Your task to perform on an android device: toggle show notifications on the lock screen Image 0: 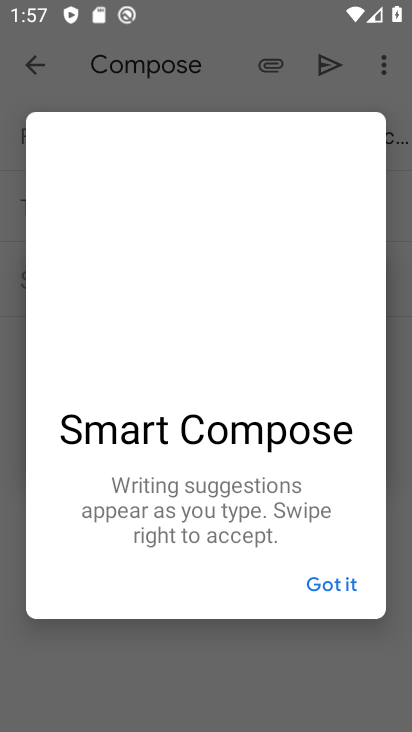
Step 0: press home button
Your task to perform on an android device: toggle show notifications on the lock screen Image 1: 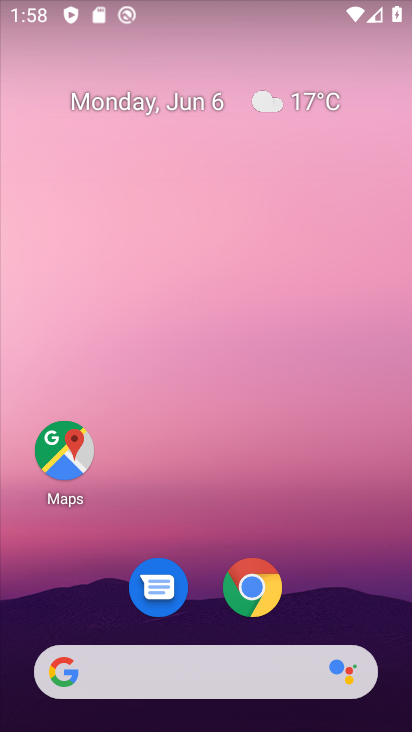
Step 1: drag from (369, 555) to (346, 173)
Your task to perform on an android device: toggle show notifications on the lock screen Image 2: 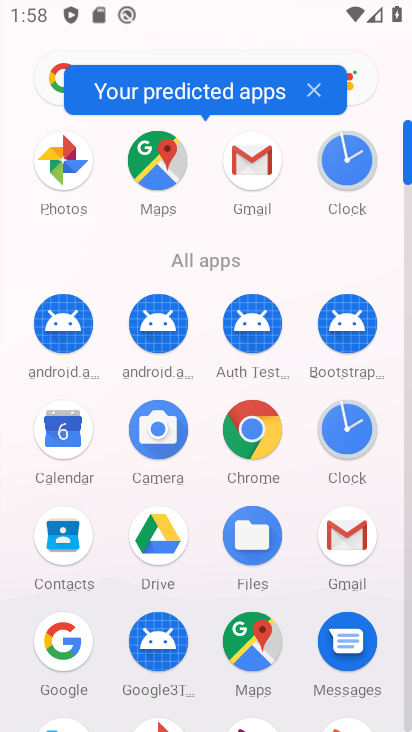
Step 2: drag from (214, 611) to (188, 333)
Your task to perform on an android device: toggle show notifications on the lock screen Image 3: 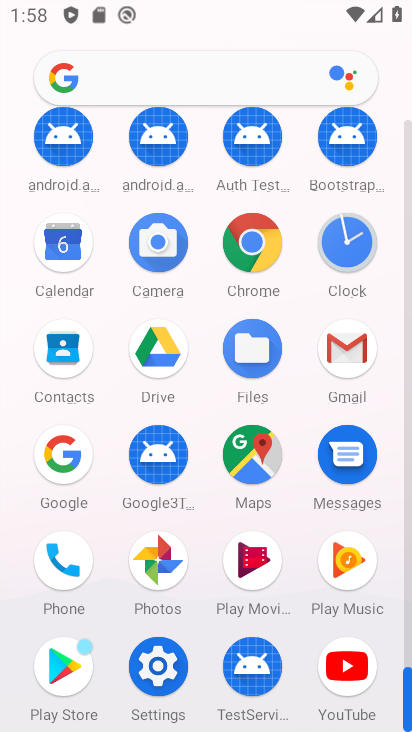
Step 3: click (168, 627)
Your task to perform on an android device: toggle show notifications on the lock screen Image 4: 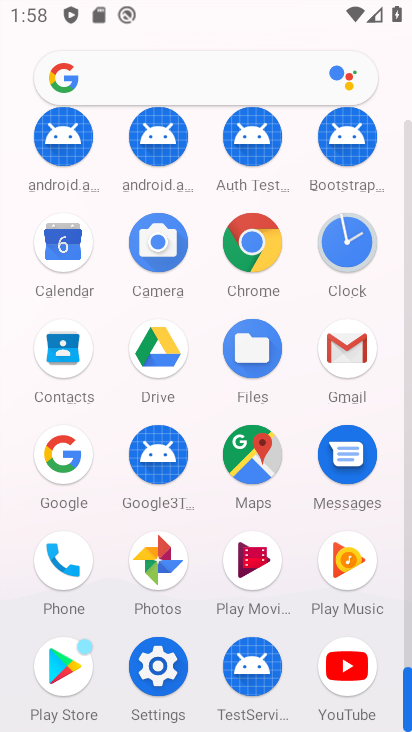
Step 4: click (168, 686)
Your task to perform on an android device: toggle show notifications on the lock screen Image 5: 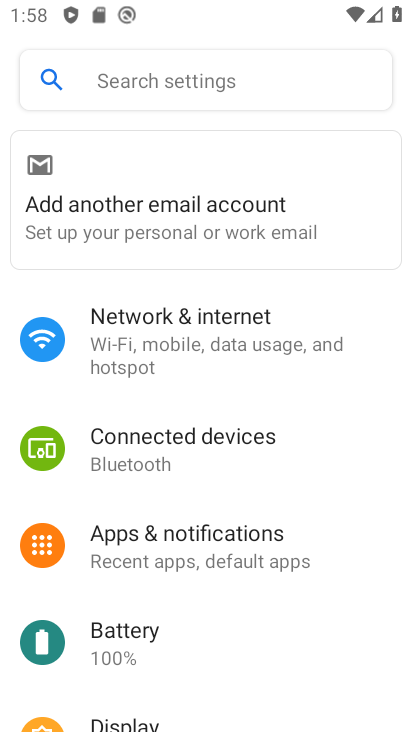
Step 5: click (230, 559)
Your task to perform on an android device: toggle show notifications on the lock screen Image 6: 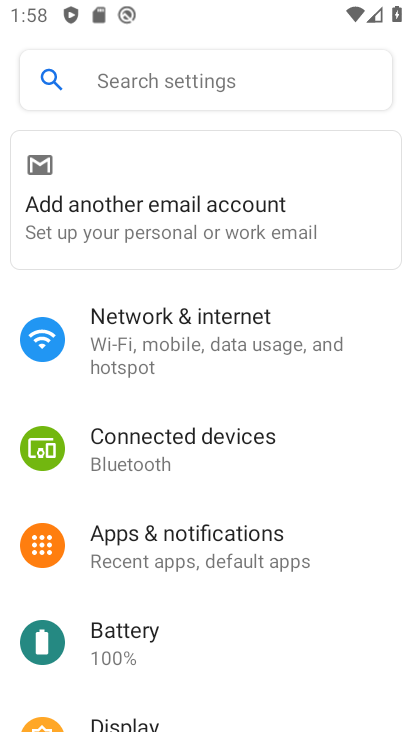
Step 6: click (173, 550)
Your task to perform on an android device: toggle show notifications on the lock screen Image 7: 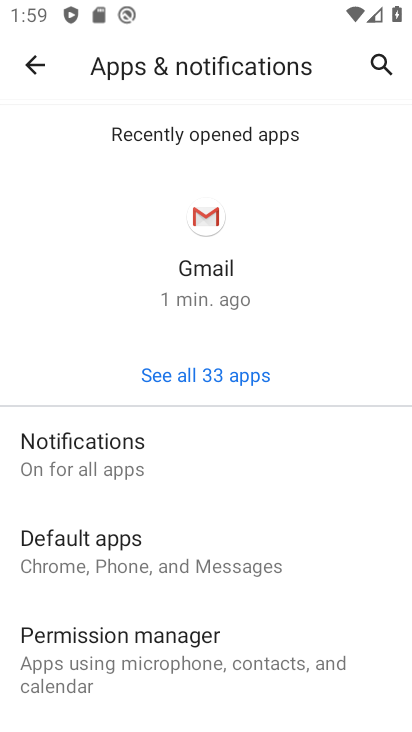
Step 7: click (167, 452)
Your task to perform on an android device: toggle show notifications on the lock screen Image 8: 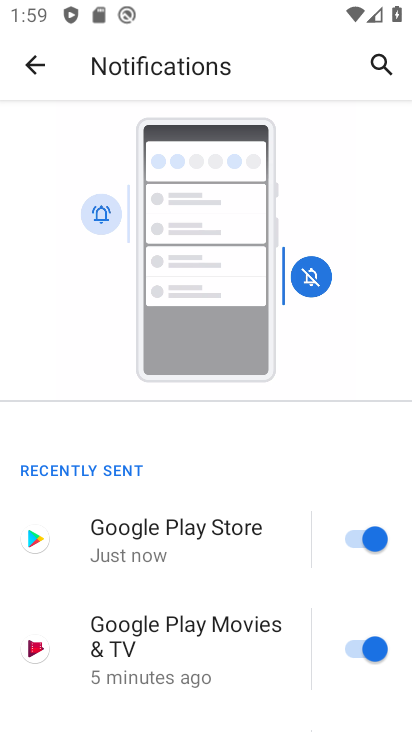
Step 8: drag from (260, 527) to (246, 237)
Your task to perform on an android device: toggle show notifications on the lock screen Image 9: 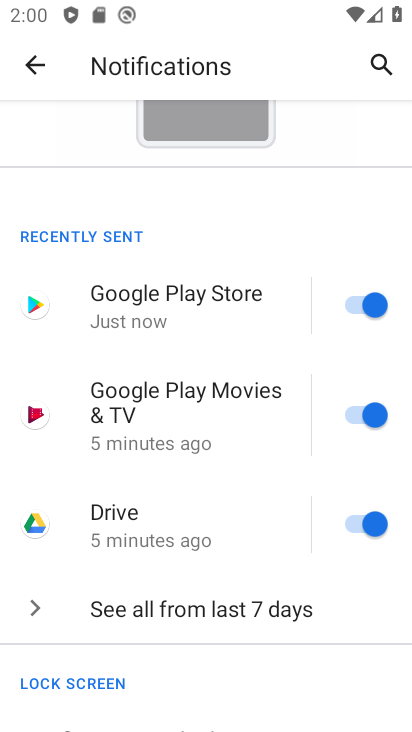
Step 9: drag from (227, 664) to (261, 321)
Your task to perform on an android device: toggle show notifications on the lock screen Image 10: 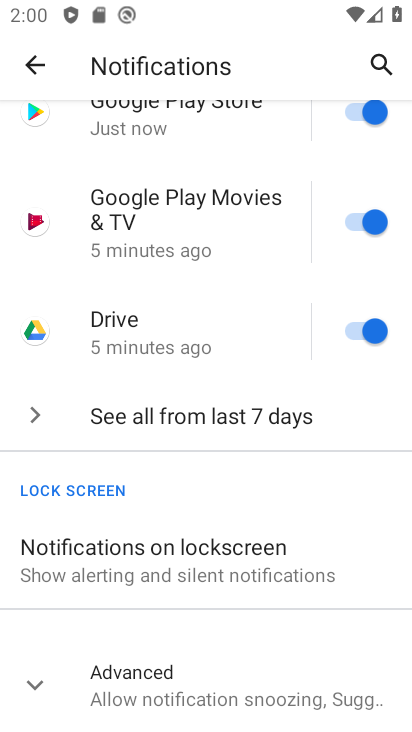
Step 10: click (196, 571)
Your task to perform on an android device: toggle show notifications on the lock screen Image 11: 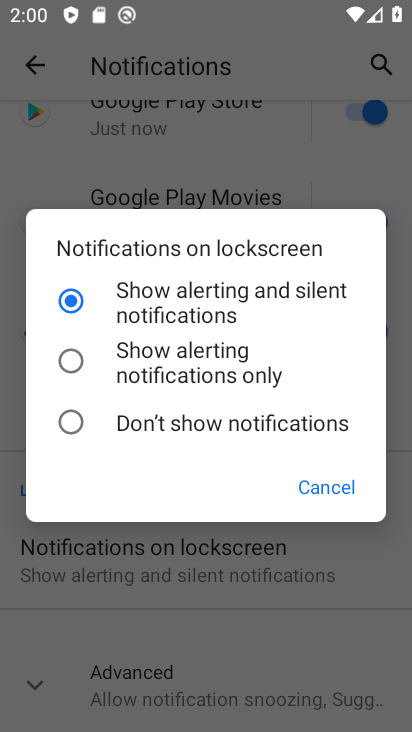
Step 11: task complete